Your task to perform on an android device: change the clock display to show seconds Image 0: 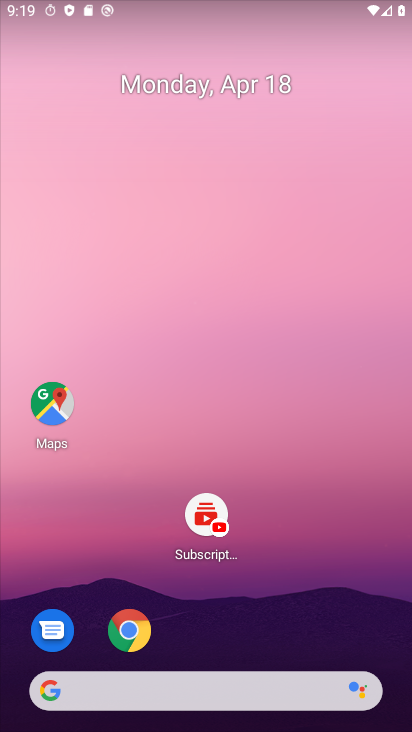
Step 0: drag from (225, 628) to (314, 165)
Your task to perform on an android device: change the clock display to show seconds Image 1: 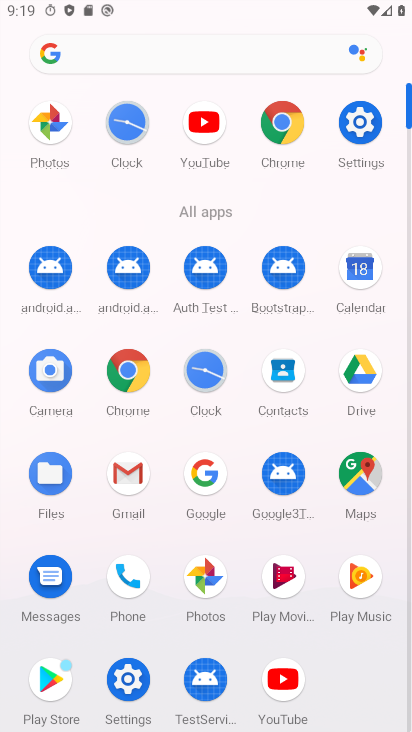
Step 1: click (205, 368)
Your task to perform on an android device: change the clock display to show seconds Image 2: 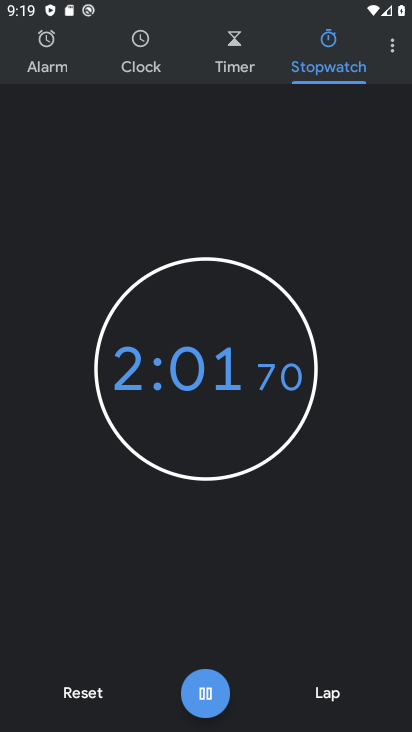
Step 2: click (391, 53)
Your task to perform on an android device: change the clock display to show seconds Image 3: 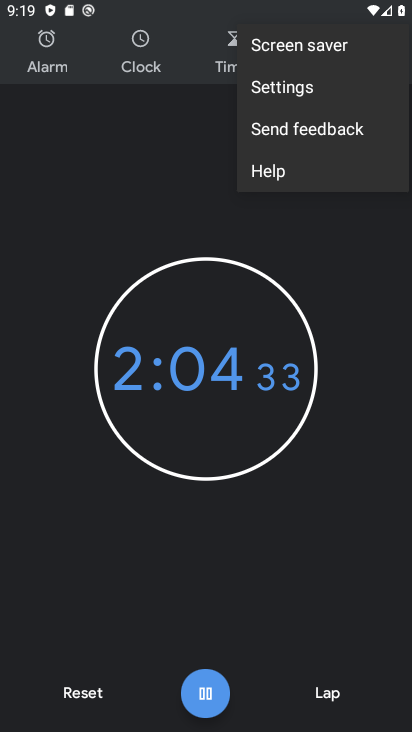
Step 3: click (328, 83)
Your task to perform on an android device: change the clock display to show seconds Image 4: 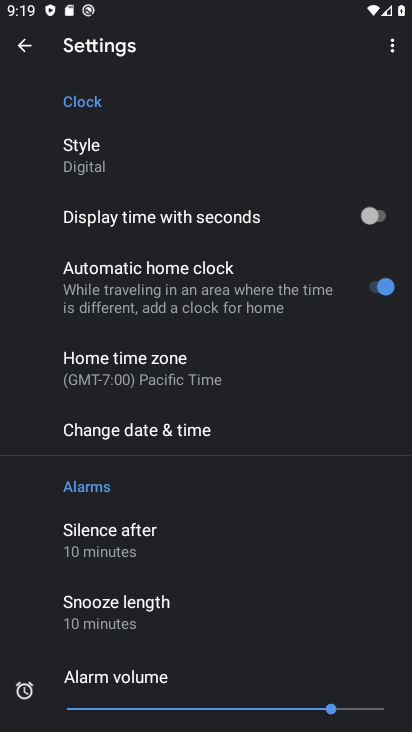
Step 4: click (371, 217)
Your task to perform on an android device: change the clock display to show seconds Image 5: 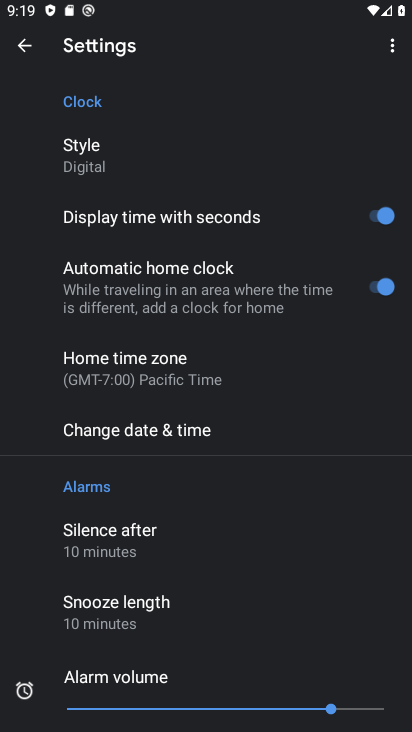
Step 5: task complete